Your task to perform on an android device: Open privacy settings Image 0: 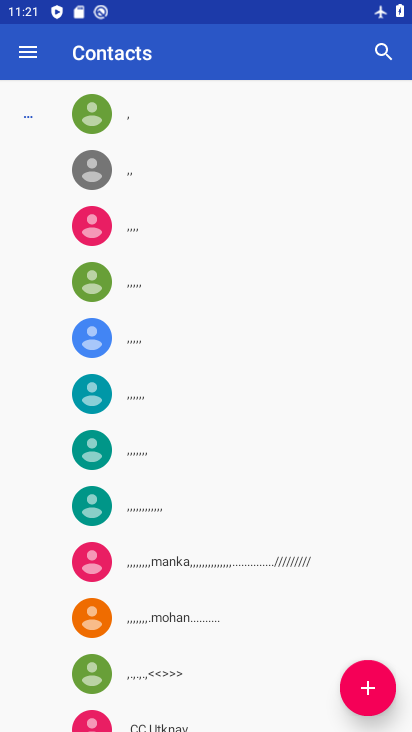
Step 0: press home button
Your task to perform on an android device: Open privacy settings Image 1: 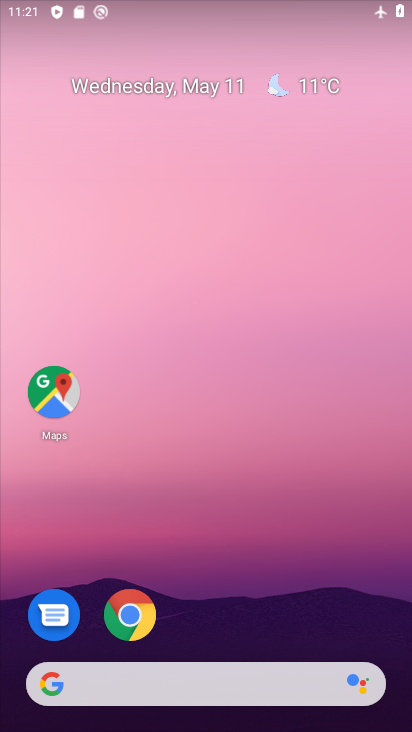
Step 1: drag from (229, 611) to (293, 188)
Your task to perform on an android device: Open privacy settings Image 2: 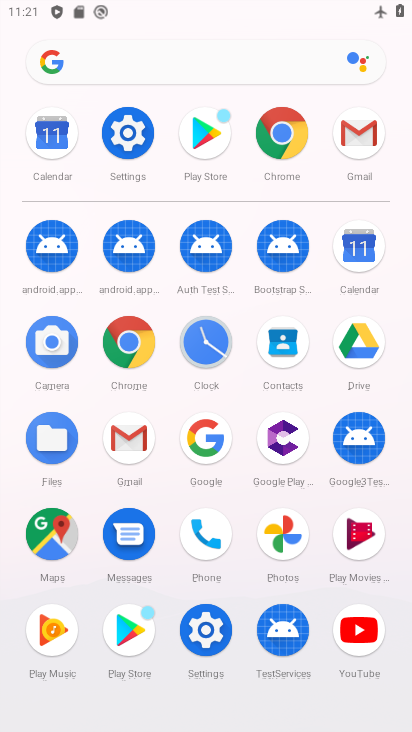
Step 2: click (115, 131)
Your task to perform on an android device: Open privacy settings Image 3: 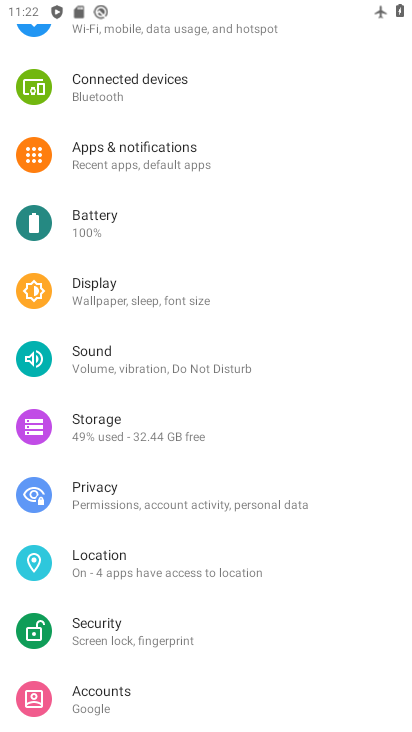
Step 3: click (148, 488)
Your task to perform on an android device: Open privacy settings Image 4: 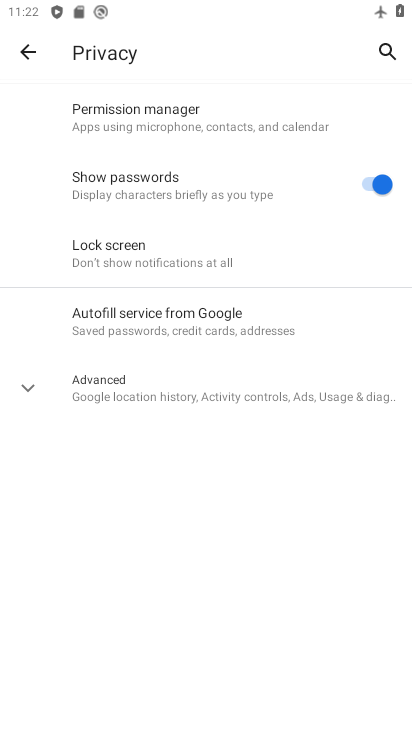
Step 4: task complete